Your task to perform on an android device: What's the weather going to be tomorrow? Image 0: 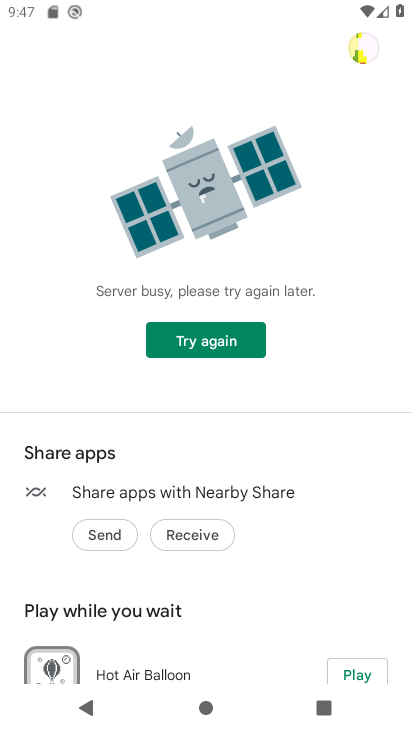
Step 0: press back button
Your task to perform on an android device: What's the weather going to be tomorrow? Image 1: 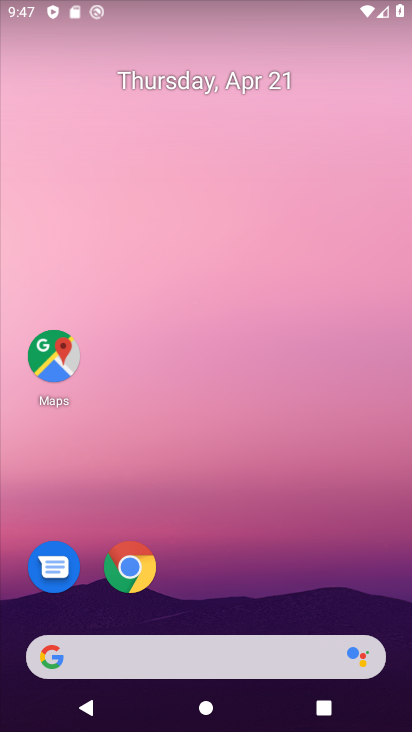
Step 1: drag from (0, 294) to (393, 297)
Your task to perform on an android device: What's the weather going to be tomorrow? Image 2: 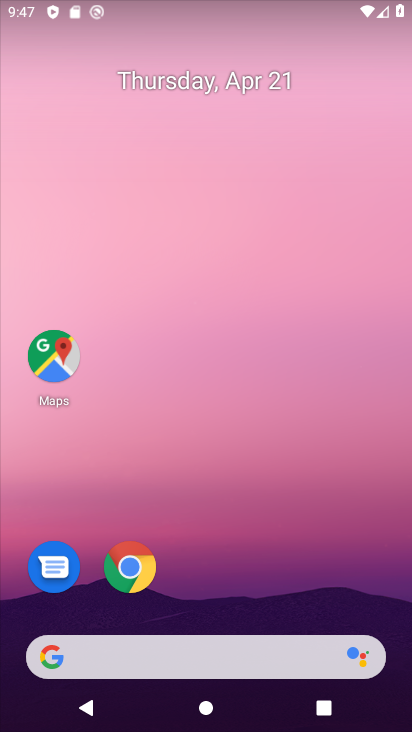
Step 2: drag from (229, 241) to (405, 230)
Your task to perform on an android device: What's the weather going to be tomorrow? Image 3: 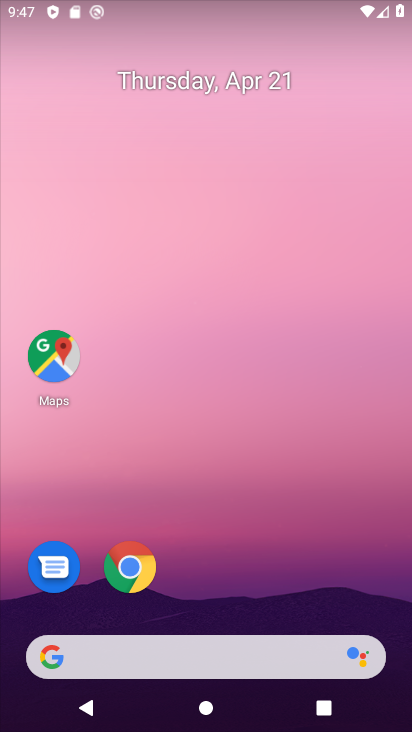
Step 3: drag from (151, 209) to (411, 220)
Your task to perform on an android device: What's the weather going to be tomorrow? Image 4: 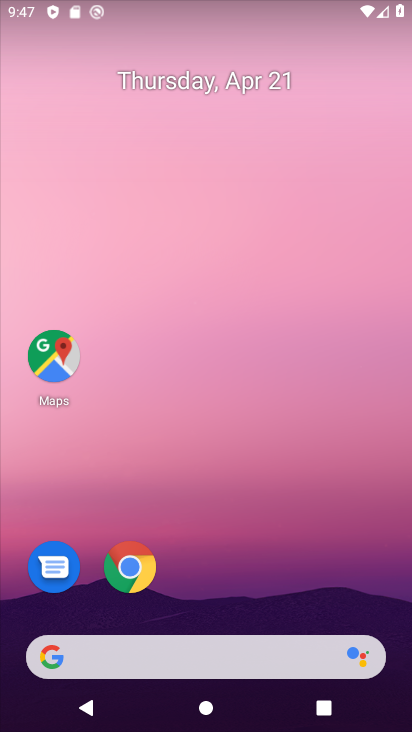
Step 4: drag from (6, 252) to (408, 241)
Your task to perform on an android device: What's the weather going to be tomorrow? Image 5: 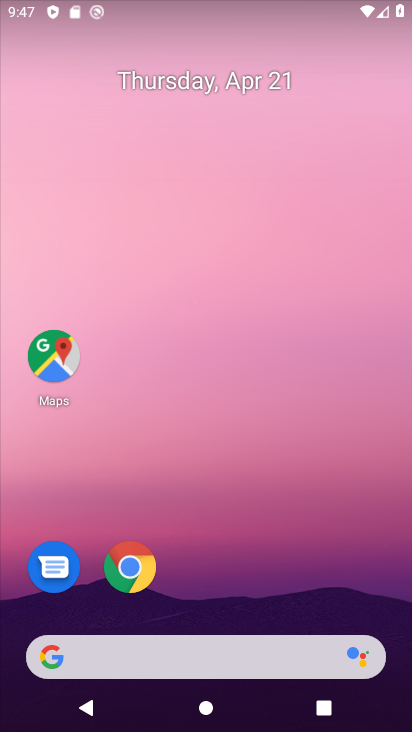
Step 5: drag from (3, 280) to (382, 287)
Your task to perform on an android device: What's the weather going to be tomorrow? Image 6: 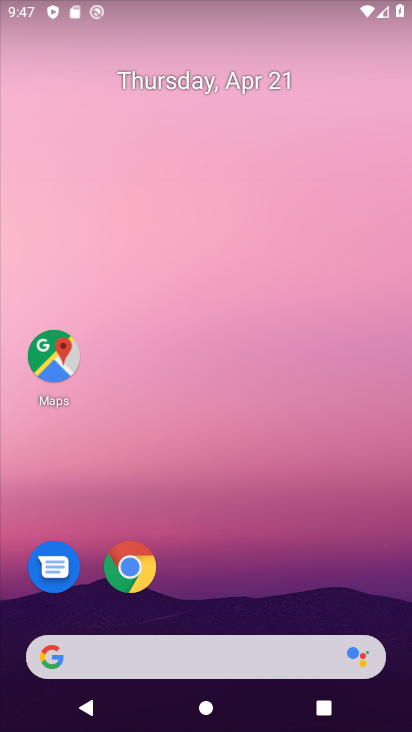
Step 6: drag from (286, 619) to (391, 150)
Your task to perform on an android device: What's the weather going to be tomorrow? Image 7: 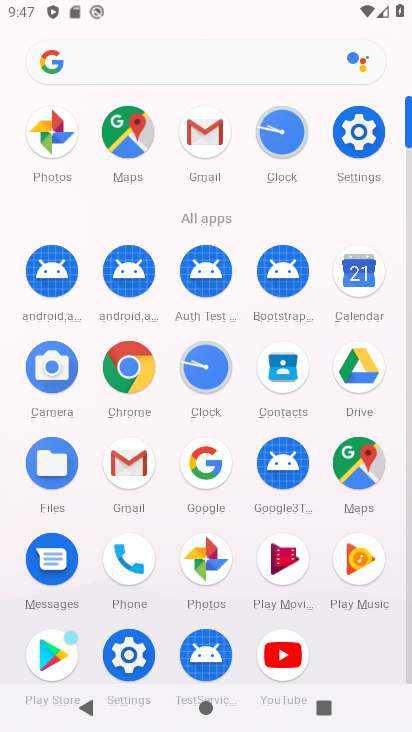
Step 7: click (227, 467)
Your task to perform on an android device: What's the weather going to be tomorrow? Image 8: 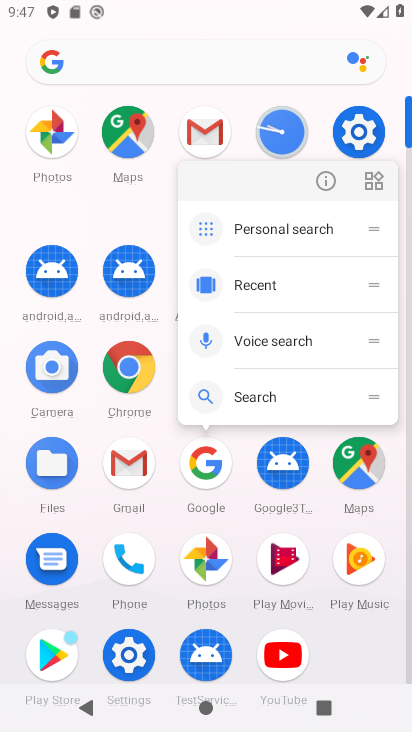
Step 8: click (199, 465)
Your task to perform on an android device: What's the weather going to be tomorrow? Image 9: 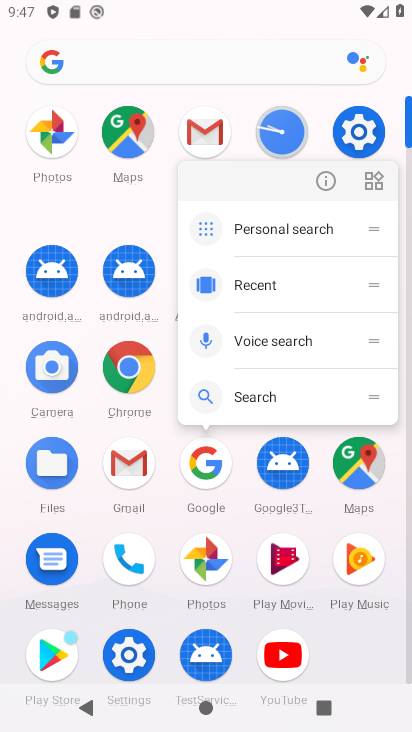
Step 9: click (207, 461)
Your task to perform on an android device: What's the weather going to be tomorrow? Image 10: 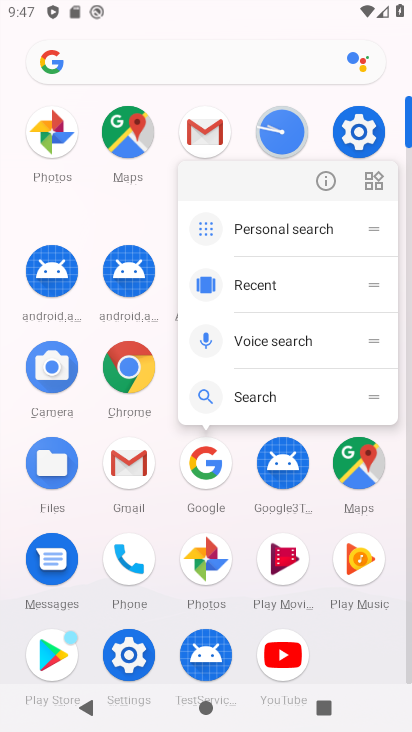
Step 10: click (207, 477)
Your task to perform on an android device: What's the weather going to be tomorrow? Image 11: 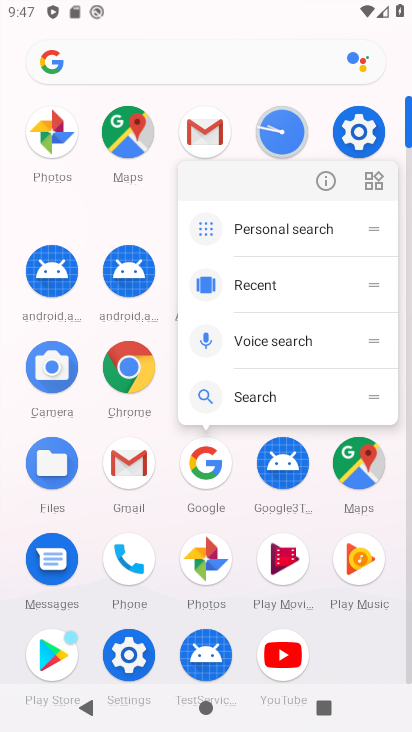
Step 11: click (214, 472)
Your task to perform on an android device: What's the weather going to be tomorrow? Image 12: 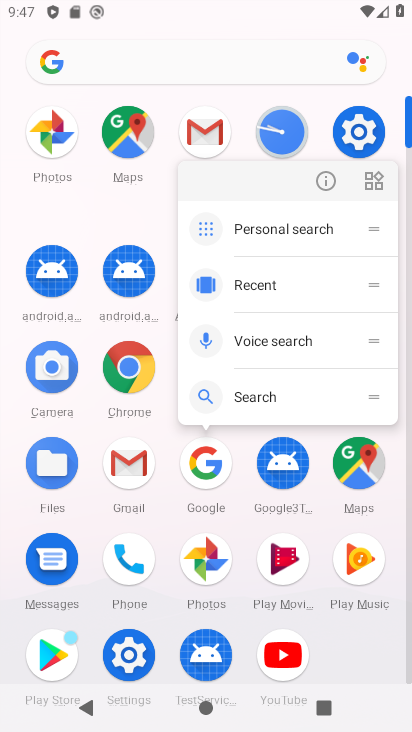
Step 12: click (213, 468)
Your task to perform on an android device: What's the weather going to be tomorrow? Image 13: 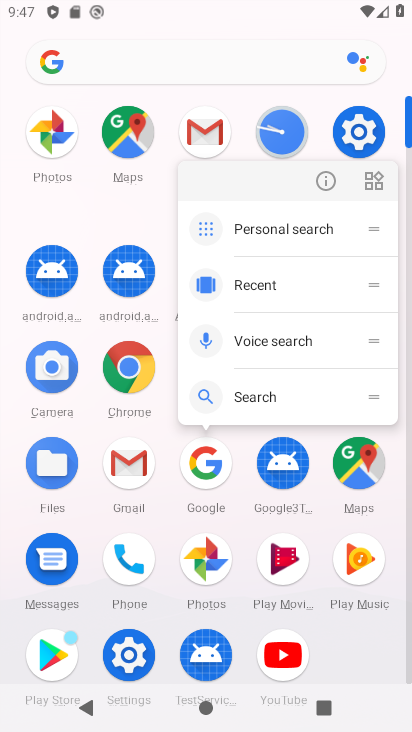
Step 13: click (188, 454)
Your task to perform on an android device: What's the weather going to be tomorrow? Image 14: 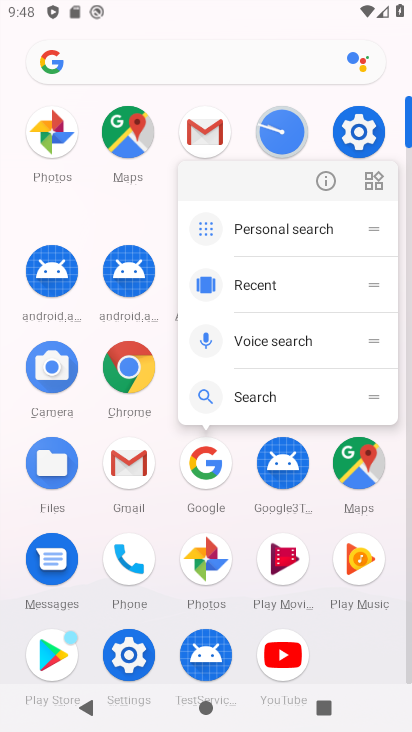
Step 14: click (207, 455)
Your task to perform on an android device: What's the weather going to be tomorrow? Image 15: 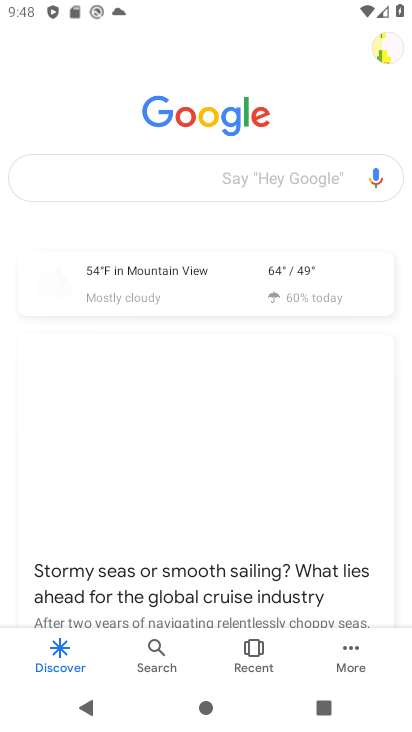
Step 15: click (195, 197)
Your task to perform on an android device: What's the weather going to be tomorrow? Image 16: 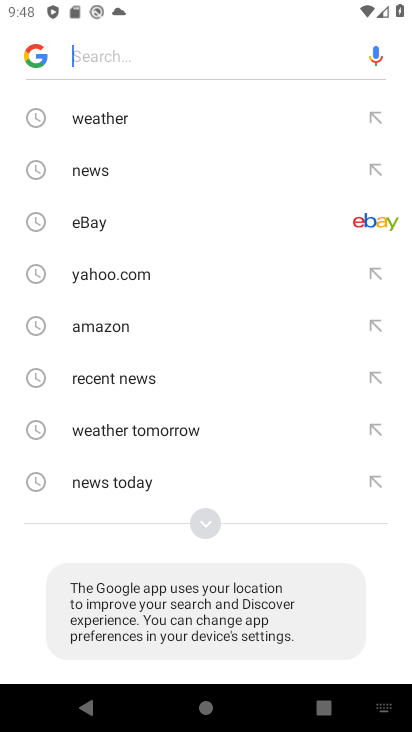
Step 16: click (143, 113)
Your task to perform on an android device: What's the weather going to be tomorrow? Image 17: 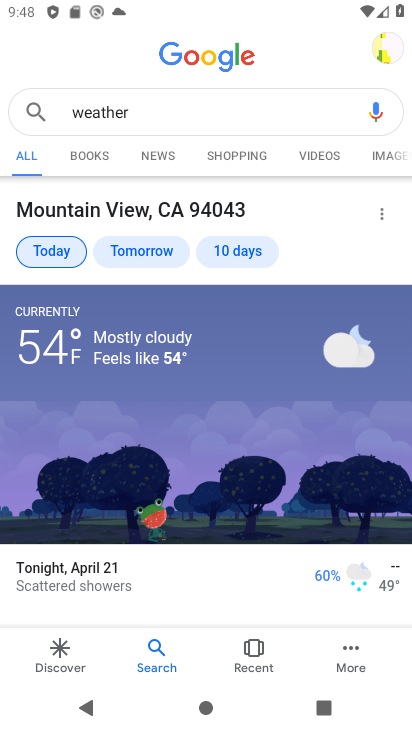
Step 17: click (152, 267)
Your task to perform on an android device: What's the weather going to be tomorrow? Image 18: 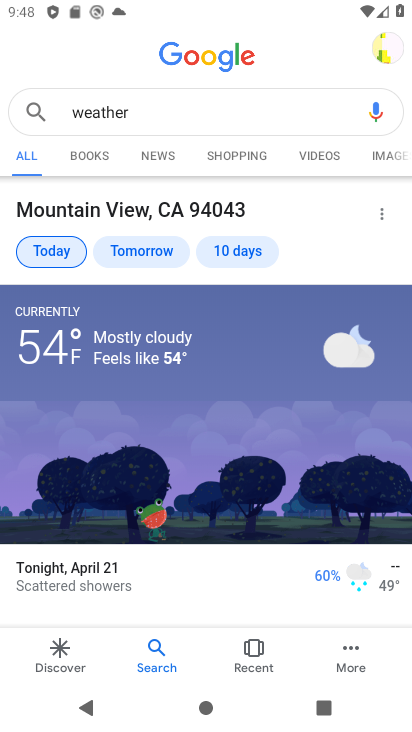
Step 18: click (167, 107)
Your task to perform on an android device: What's the weather going to be tomorrow? Image 19: 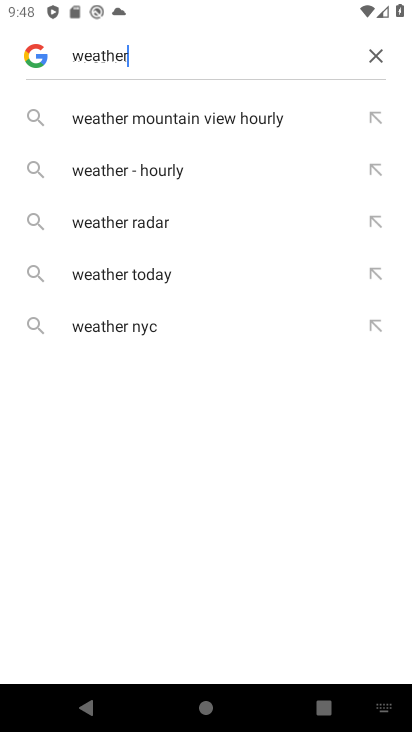
Step 19: type " tomorrow"
Your task to perform on an android device: What's the weather going to be tomorrow? Image 20: 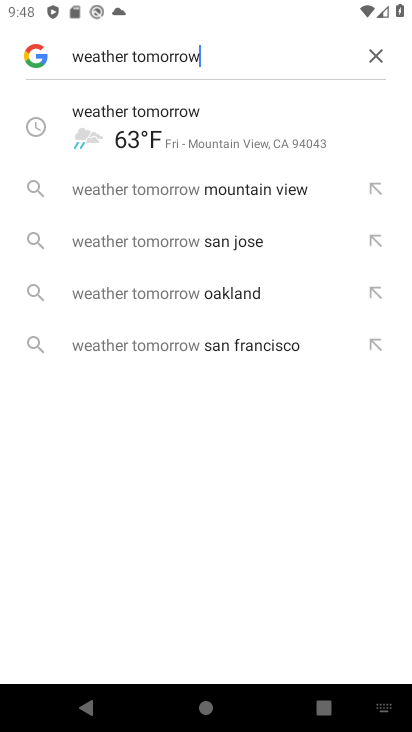
Step 20: click (183, 154)
Your task to perform on an android device: What's the weather going to be tomorrow? Image 21: 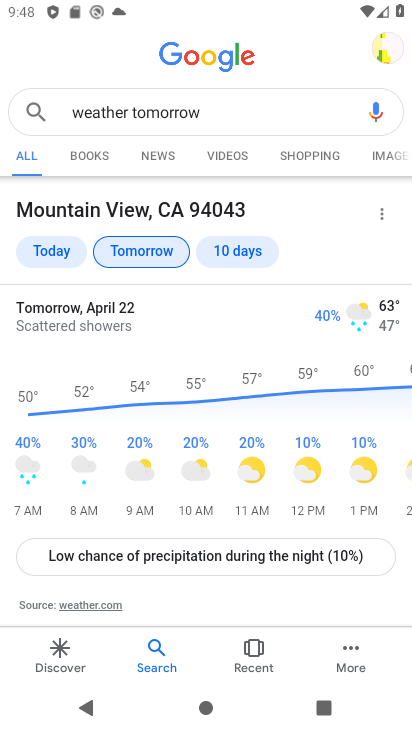
Step 21: task complete